Your task to perform on an android device: open sync settings in chrome Image 0: 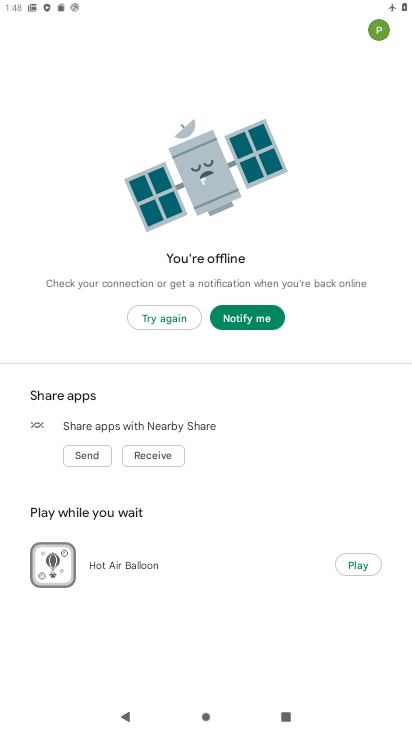
Step 0: press home button
Your task to perform on an android device: open sync settings in chrome Image 1: 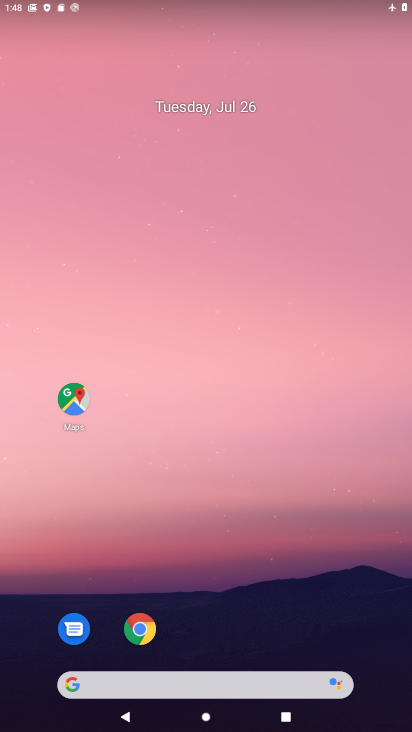
Step 1: drag from (189, 667) to (224, 125)
Your task to perform on an android device: open sync settings in chrome Image 2: 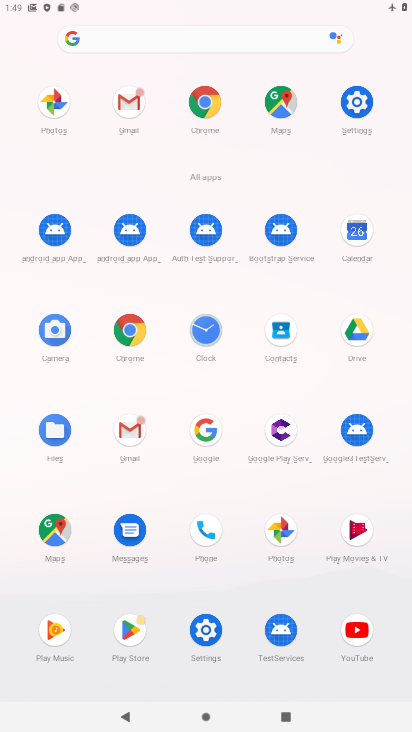
Step 2: click (139, 326)
Your task to perform on an android device: open sync settings in chrome Image 3: 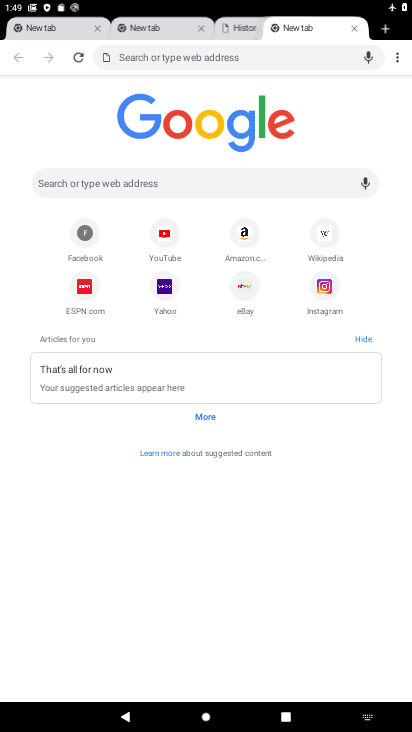
Step 3: click (393, 54)
Your task to perform on an android device: open sync settings in chrome Image 4: 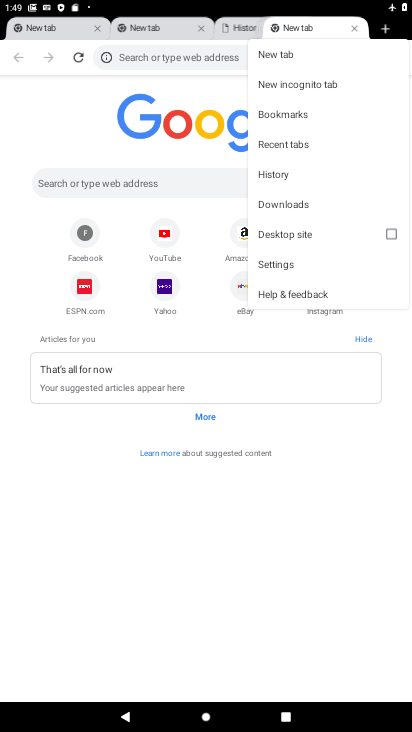
Step 4: click (281, 264)
Your task to perform on an android device: open sync settings in chrome Image 5: 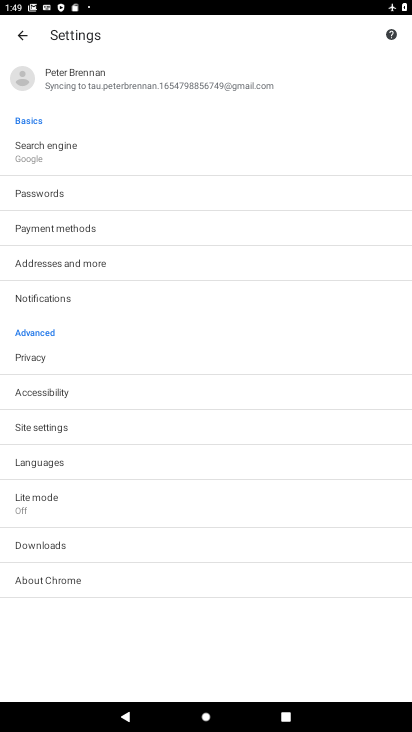
Step 5: click (66, 80)
Your task to perform on an android device: open sync settings in chrome Image 6: 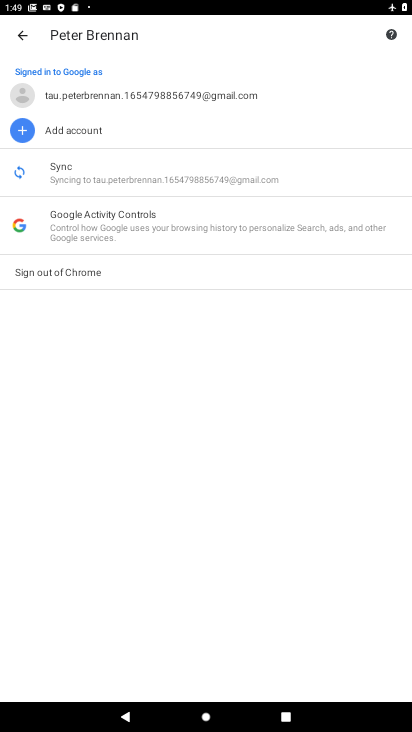
Step 6: click (82, 182)
Your task to perform on an android device: open sync settings in chrome Image 7: 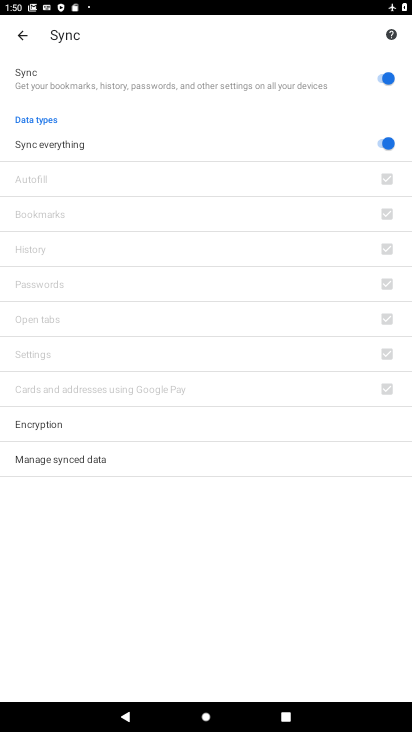
Step 7: task complete